Your task to perform on an android device: Open calendar and show me the third week of next month Image 0: 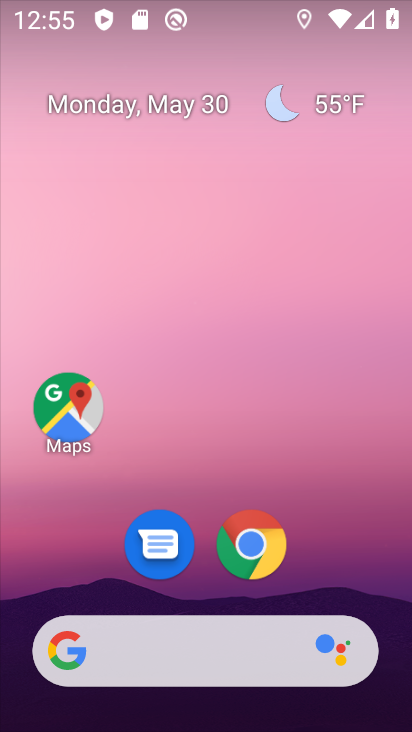
Step 0: drag from (357, 563) to (328, 55)
Your task to perform on an android device: Open calendar and show me the third week of next month Image 1: 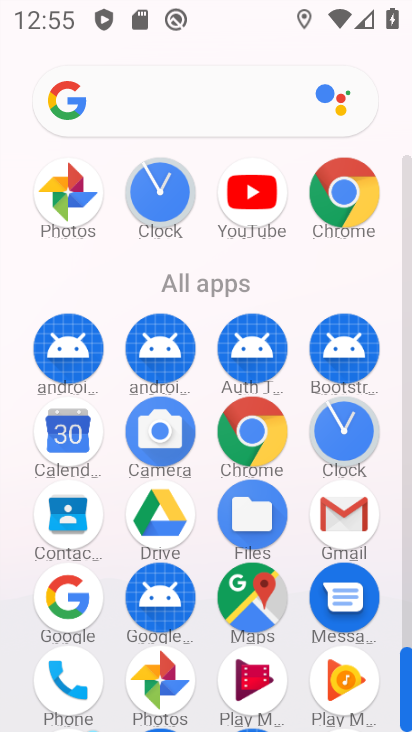
Step 1: click (55, 447)
Your task to perform on an android device: Open calendar and show me the third week of next month Image 2: 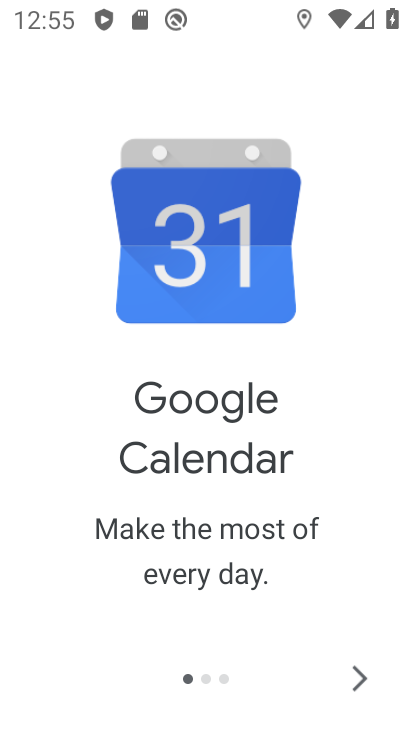
Step 2: click (365, 685)
Your task to perform on an android device: Open calendar and show me the third week of next month Image 3: 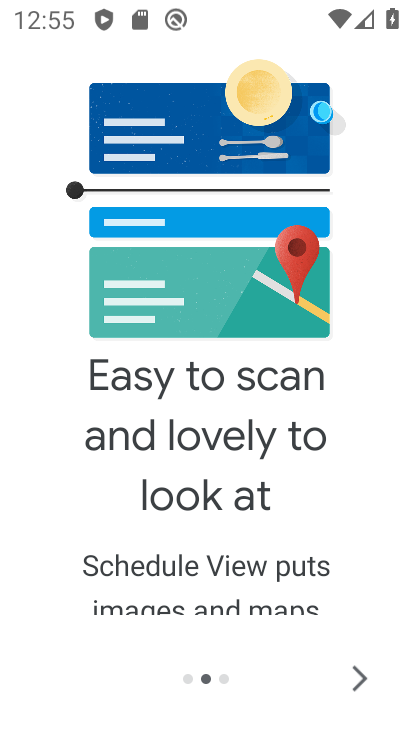
Step 3: click (365, 684)
Your task to perform on an android device: Open calendar and show me the third week of next month Image 4: 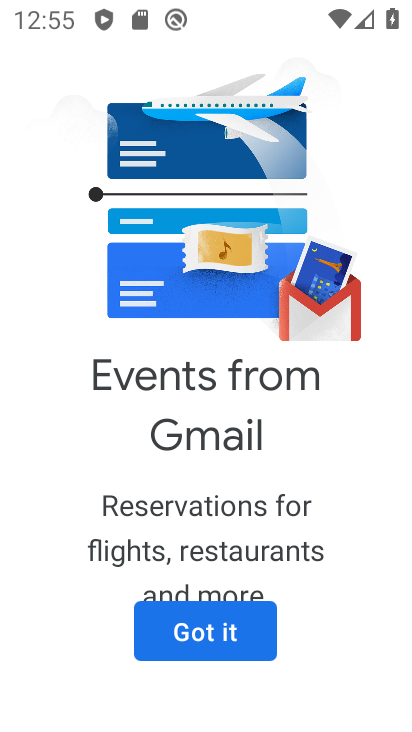
Step 4: click (203, 646)
Your task to perform on an android device: Open calendar and show me the third week of next month Image 5: 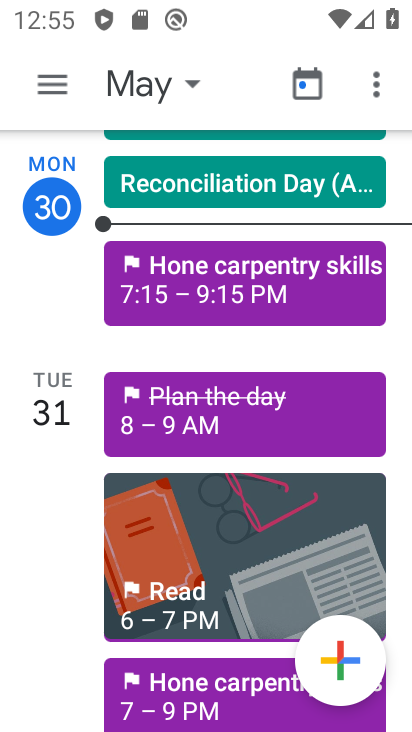
Step 5: click (61, 89)
Your task to perform on an android device: Open calendar and show me the third week of next month Image 6: 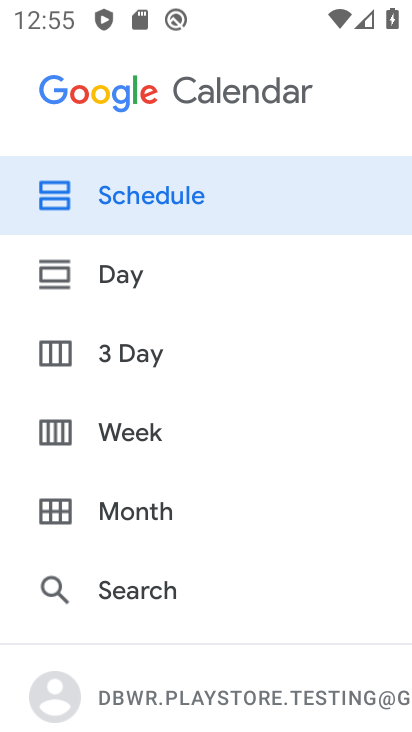
Step 6: click (156, 440)
Your task to perform on an android device: Open calendar and show me the third week of next month Image 7: 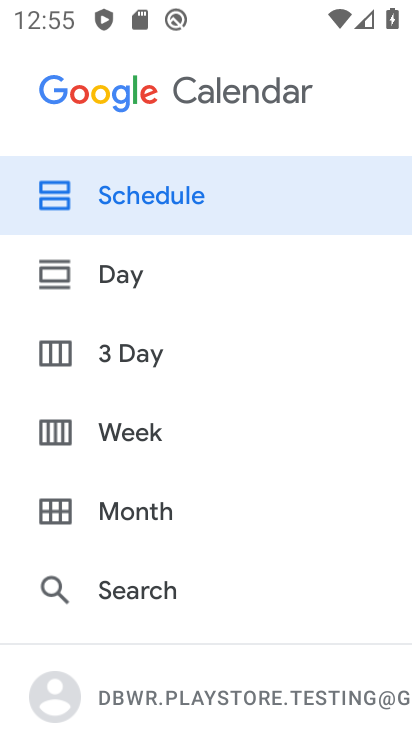
Step 7: click (149, 418)
Your task to perform on an android device: Open calendar and show me the third week of next month Image 8: 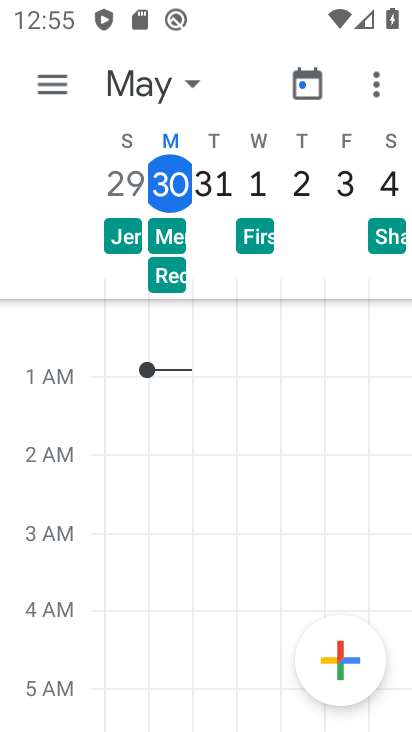
Step 8: click (159, 89)
Your task to perform on an android device: Open calendar and show me the third week of next month Image 9: 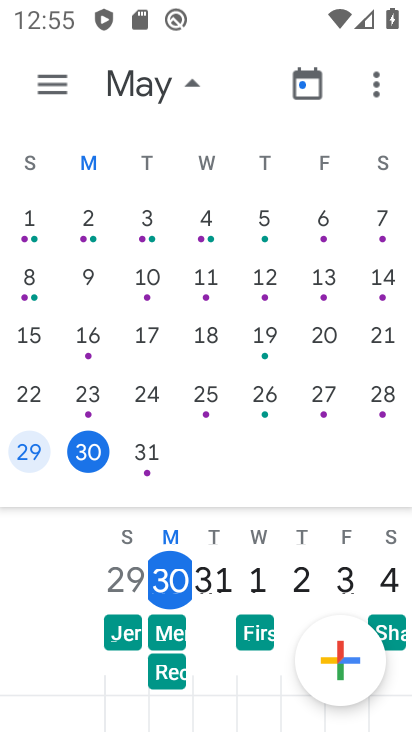
Step 9: drag from (341, 408) to (50, 377)
Your task to perform on an android device: Open calendar and show me the third week of next month Image 10: 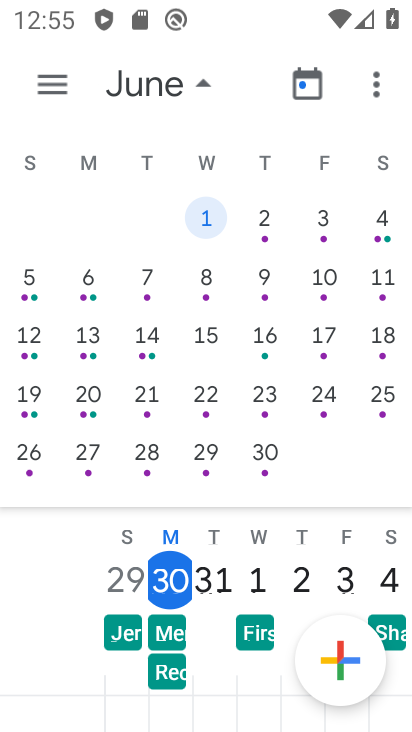
Step 10: click (32, 396)
Your task to perform on an android device: Open calendar and show me the third week of next month Image 11: 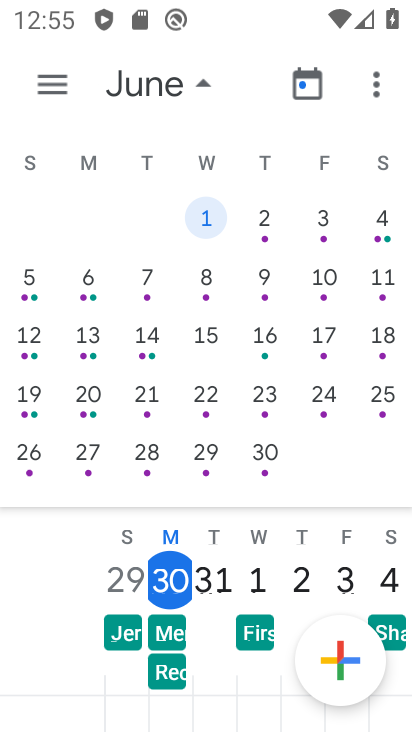
Step 11: click (19, 405)
Your task to perform on an android device: Open calendar and show me the third week of next month Image 12: 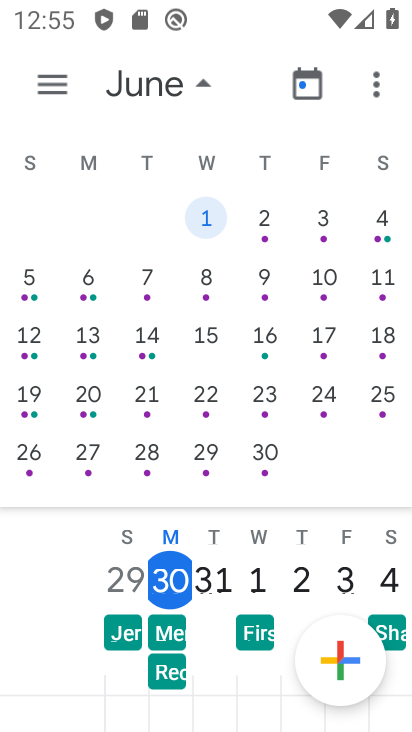
Step 12: click (30, 398)
Your task to perform on an android device: Open calendar and show me the third week of next month Image 13: 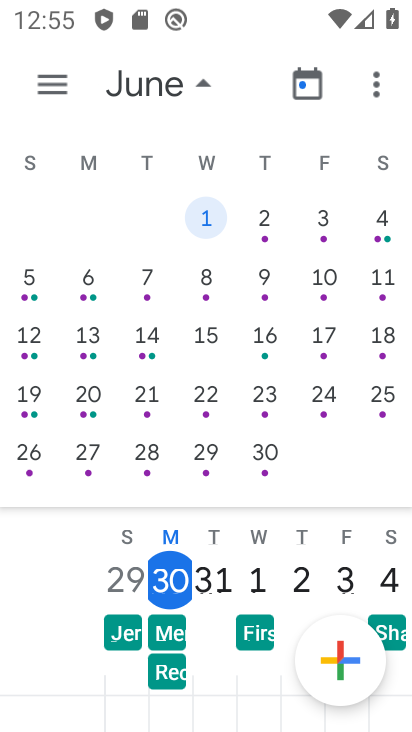
Step 13: click (46, 409)
Your task to perform on an android device: Open calendar and show me the third week of next month Image 14: 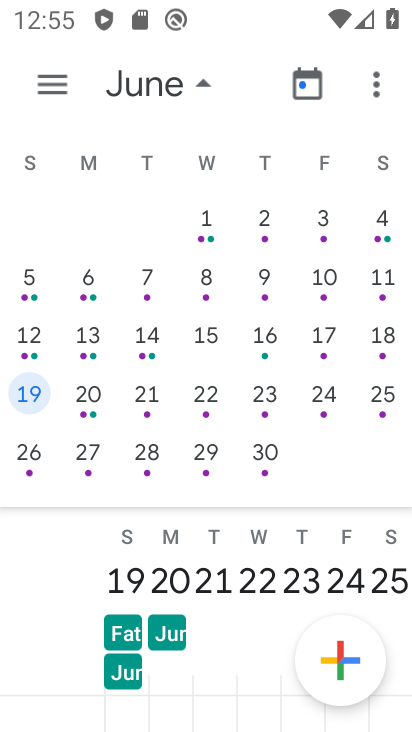
Step 14: task complete